Your task to perform on an android device: turn pop-ups on in chrome Image 0: 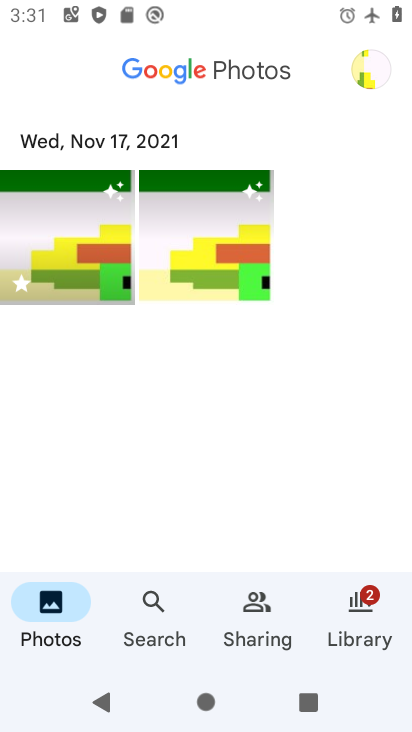
Step 0: press home button
Your task to perform on an android device: turn pop-ups on in chrome Image 1: 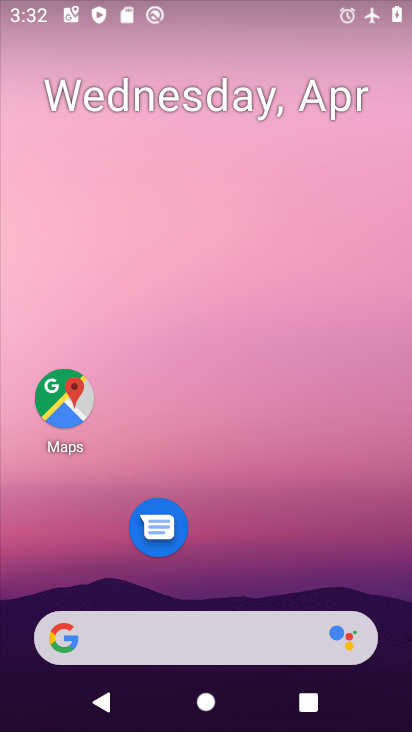
Step 1: drag from (228, 354) to (198, 140)
Your task to perform on an android device: turn pop-ups on in chrome Image 2: 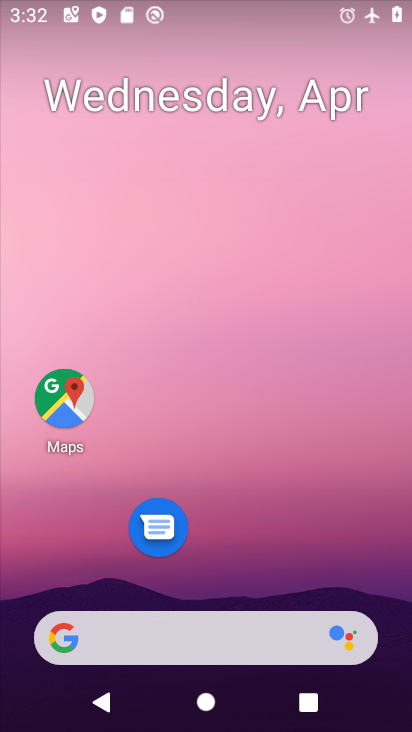
Step 2: drag from (231, 570) to (222, 45)
Your task to perform on an android device: turn pop-ups on in chrome Image 3: 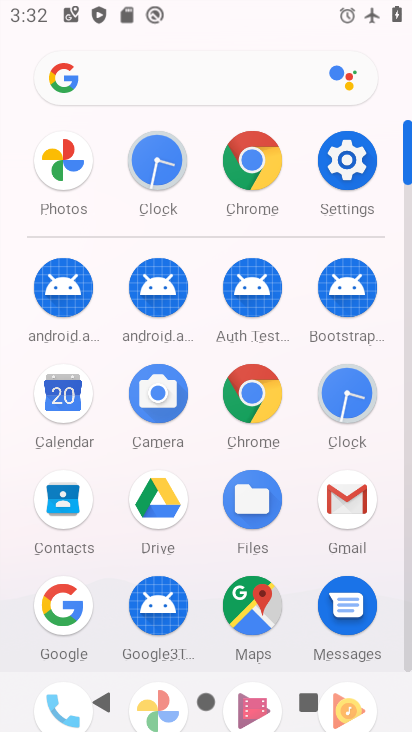
Step 3: click (258, 156)
Your task to perform on an android device: turn pop-ups on in chrome Image 4: 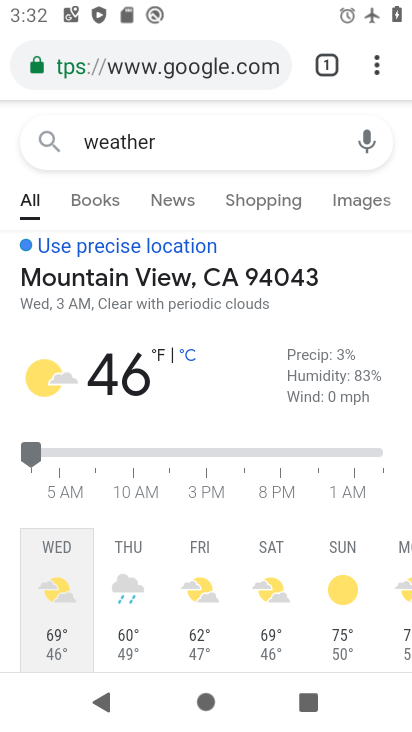
Step 4: click (378, 65)
Your task to perform on an android device: turn pop-ups on in chrome Image 5: 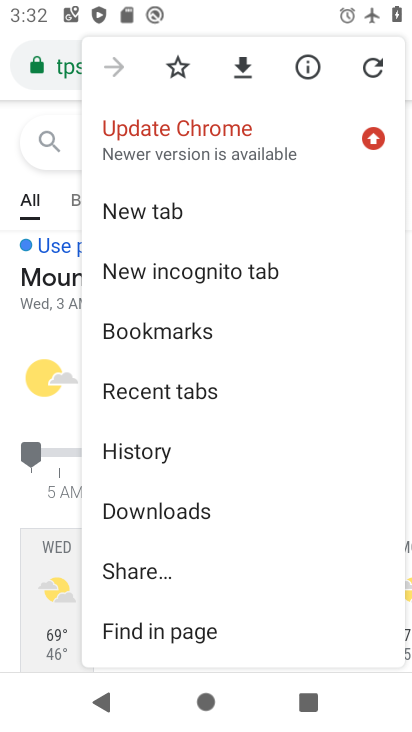
Step 5: drag from (187, 467) to (180, 278)
Your task to perform on an android device: turn pop-ups on in chrome Image 6: 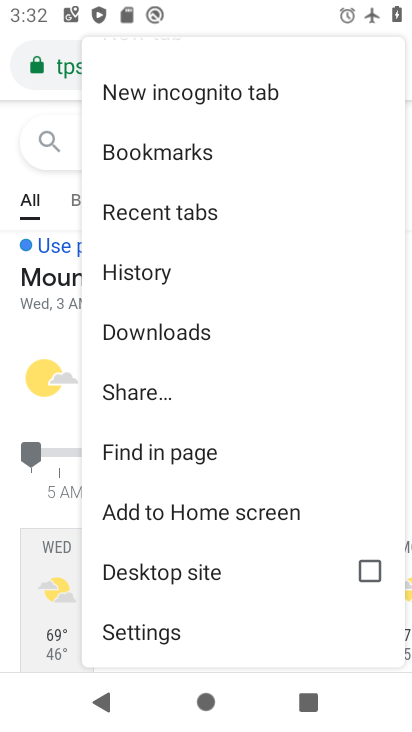
Step 6: click (152, 632)
Your task to perform on an android device: turn pop-ups on in chrome Image 7: 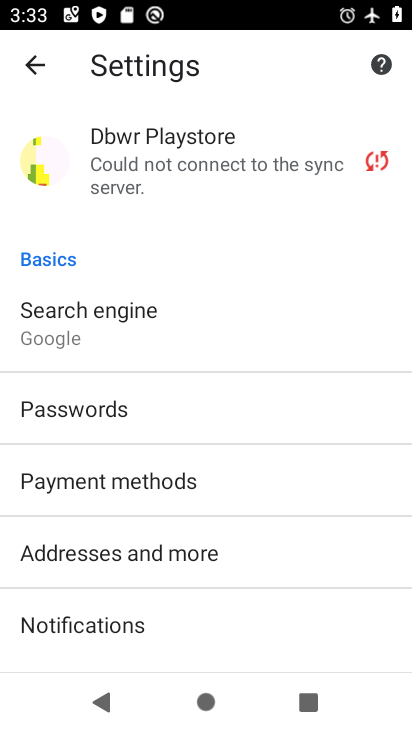
Step 7: drag from (145, 453) to (161, 233)
Your task to perform on an android device: turn pop-ups on in chrome Image 8: 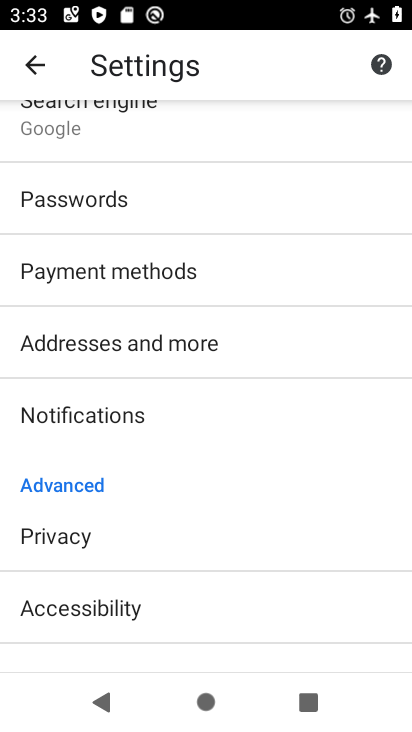
Step 8: drag from (131, 441) to (141, 184)
Your task to perform on an android device: turn pop-ups on in chrome Image 9: 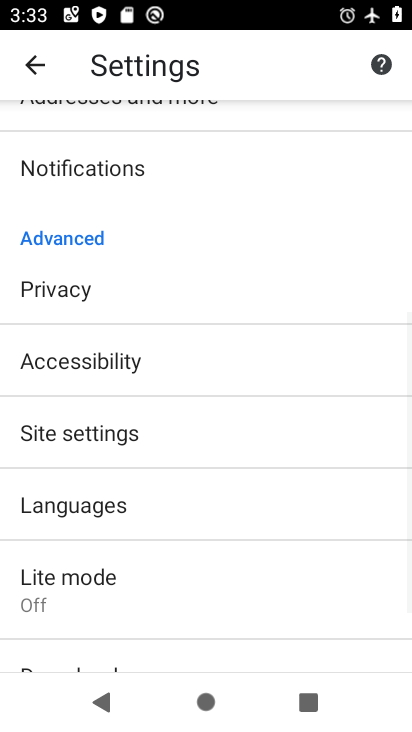
Step 9: click (118, 438)
Your task to perform on an android device: turn pop-ups on in chrome Image 10: 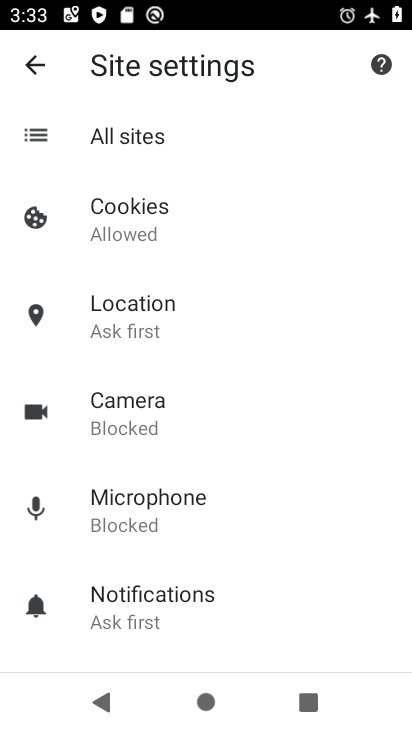
Step 10: drag from (156, 481) to (152, 234)
Your task to perform on an android device: turn pop-ups on in chrome Image 11: 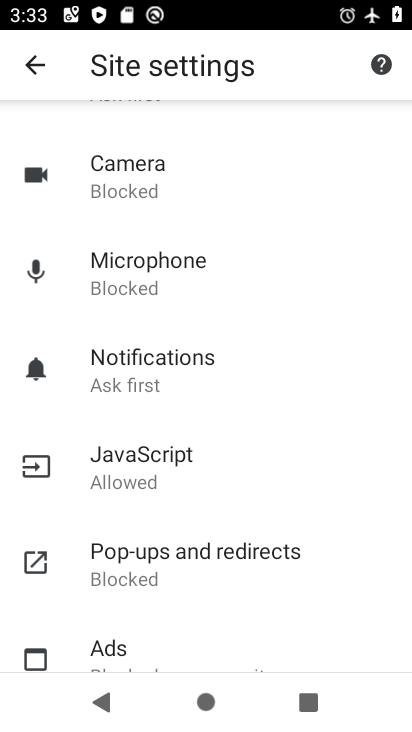
Step 11: click (168, 560)
Your task to perform on an android device: turn pop-ups on in chrome Image 12: 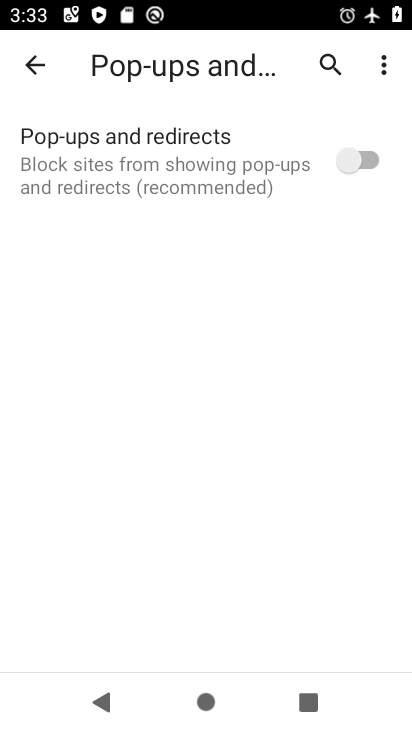
Step 12: click (362, 158)
Your task to perform on an android device: turn pop-ups on in chrome Image 13: 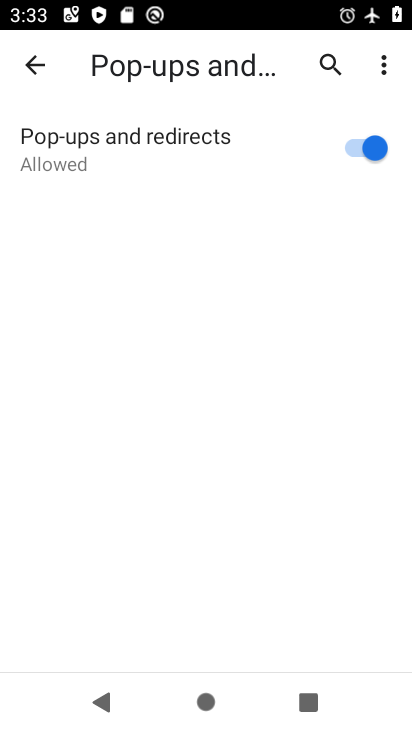
Step 13: task complete